Your task to perform on an android device: check android version Image 0: 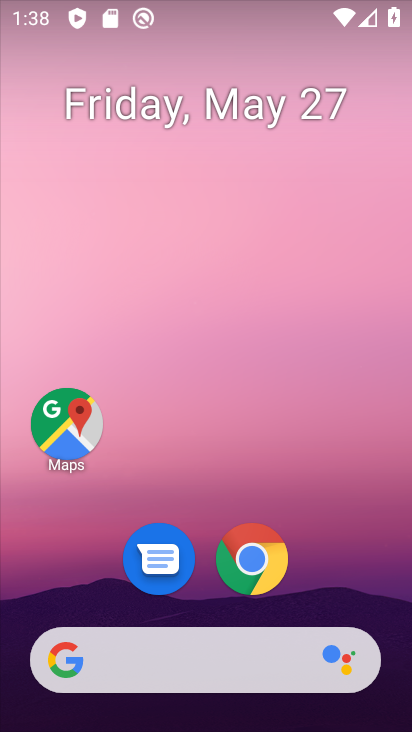
Step 0: drag from (85, 598) to (197, 182)
Your task to perform on an android device: check android version Image 1: 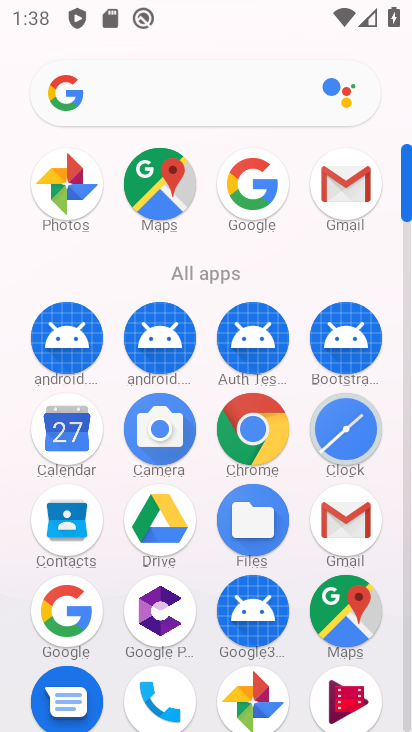
Step 1: drag from (146, 652) to (246, 357)
Your task to perform on an android device: check android version Image 2: 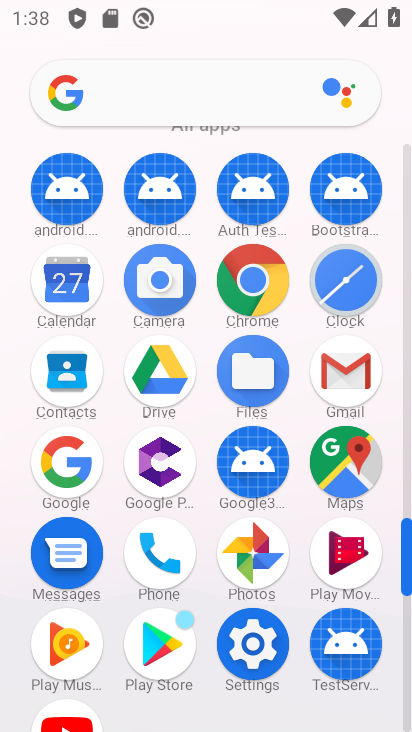
Step 2: click (275, 661)
Your task to perform on an android device: check android version Image 3: 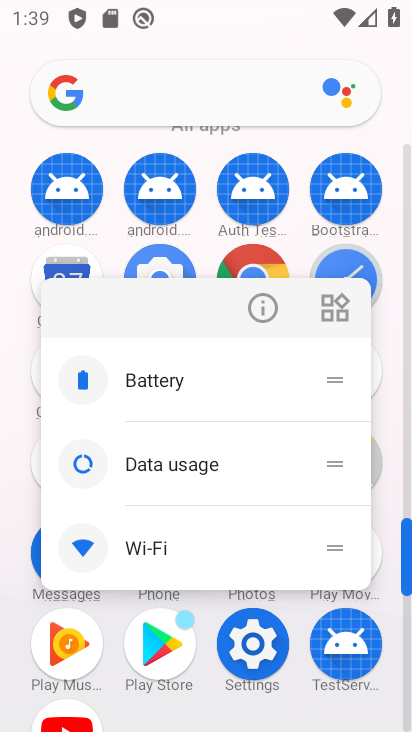
Step 3: click (255, 655)
Your task to perform on an android device: check android version Image 4: 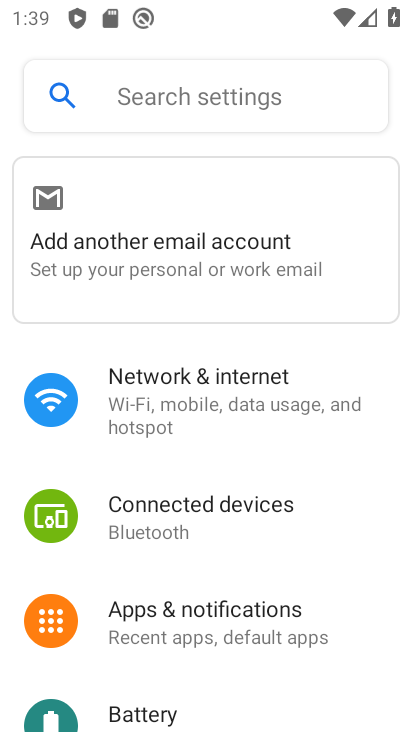
Step 4: drag from (135, 635) to (344, 74)
Your task to perform on an android device: check android version Image 5: 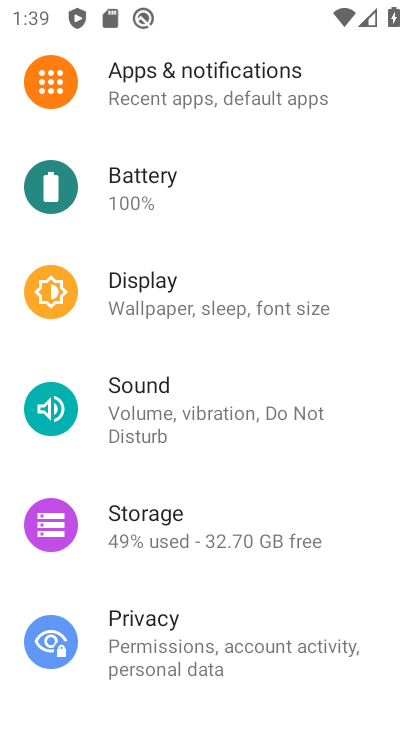
Step 5: drag from (213, 655) to (398, 129)
Your task to perform on an android device: check android version Image 6: 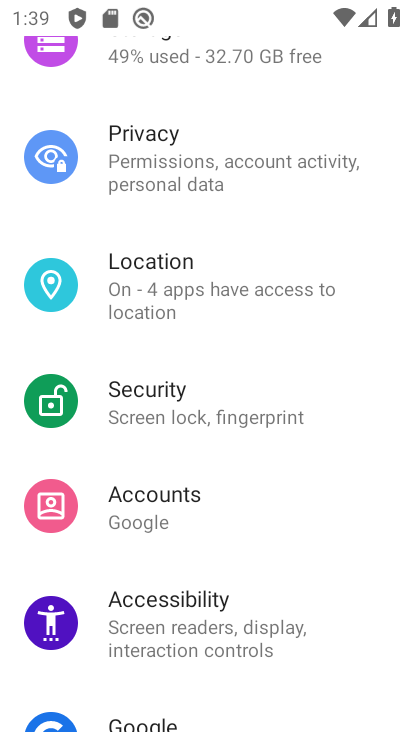
Step 6: drag from (230, 628) to (378, 179)
Your task to perform on an android device: check android version Image 7: 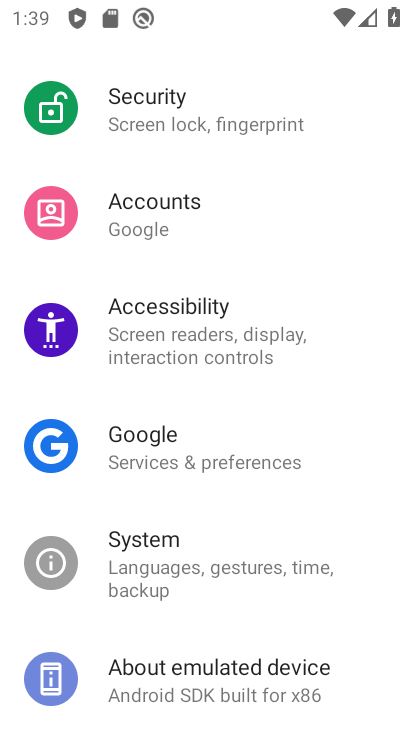
Step 7: drag from (261, 687) to (358, 436)
Your task to perform on an android device: check android version Image 8: 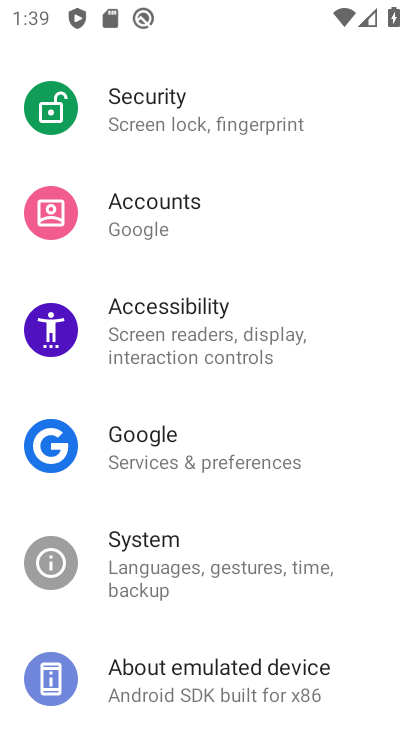
Step 8: click (190, 670)
Your task to perform on an android device: check android version Image 9: 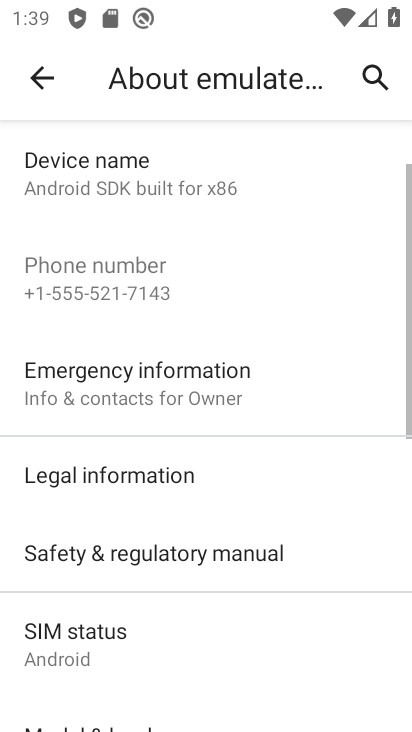
Step 9: drag from (190, 629) to (336, 244)
Your task to perform on an android device: check android version Image 10: 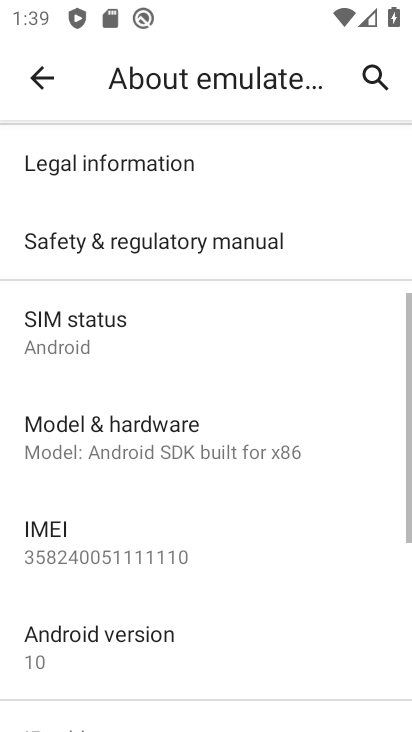
Step 10: click (125, 644)
Your task to perform on an android device: check android version Image 11: 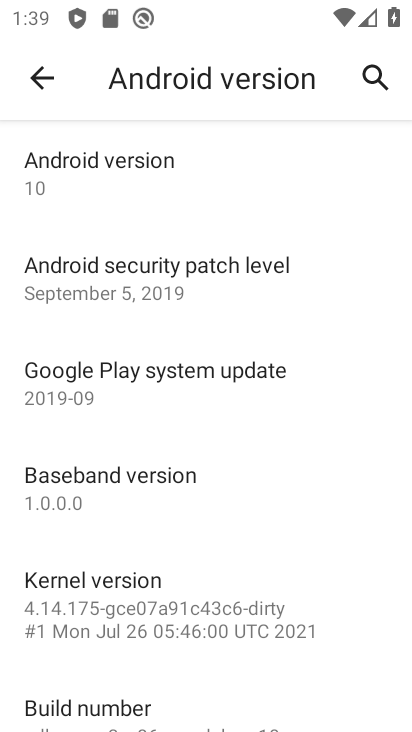
Step 11: task complete